Your task to perform on an android device: Open Youtube and go to the subscriptions tab Image 0: 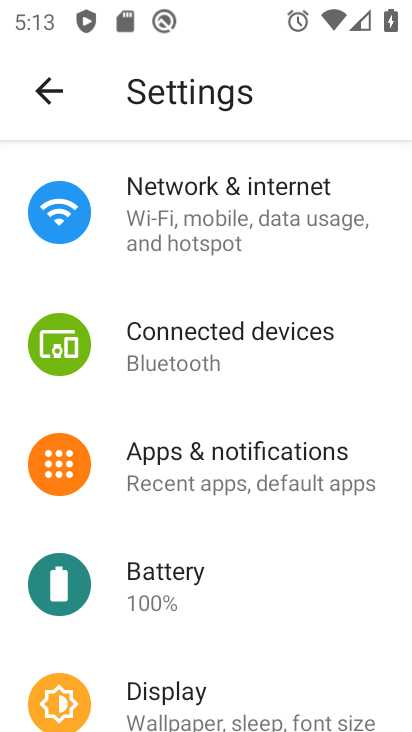
Step 0: press home button
Your task to perform on an android device: Open Youtube and go to the subscriptions tab Image 1: 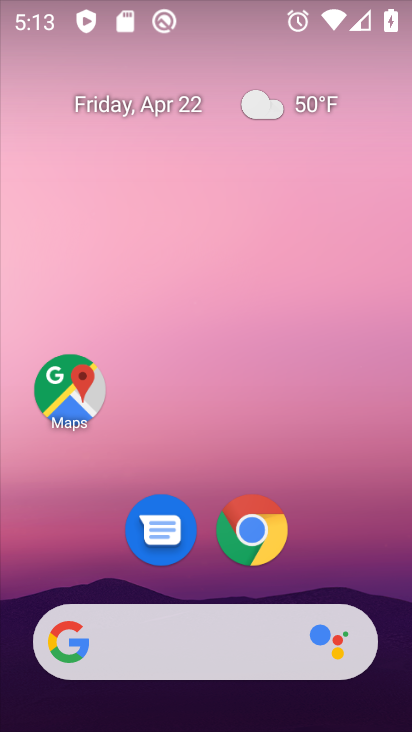
Step 1: drag from (341, 580) to (347, 95)
Your task to perform on an android device: Open Youtube and go to the subscriptions tab Image 2: 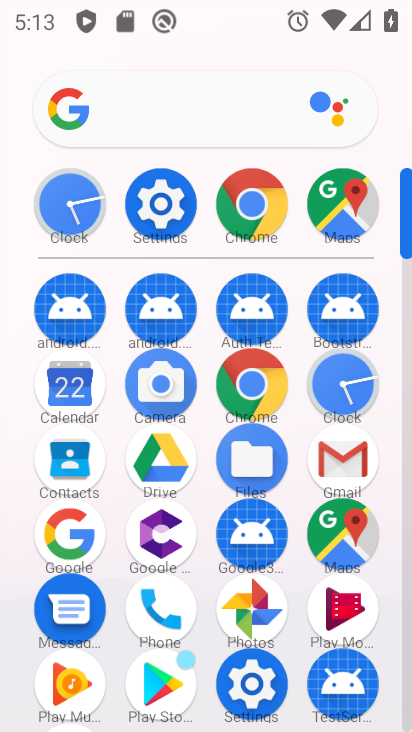
Step 2: drag from (306, 229) to (314, 42)
Your task to perform on an android device: Open Youtube and go to the subscriptions tab Image 3: 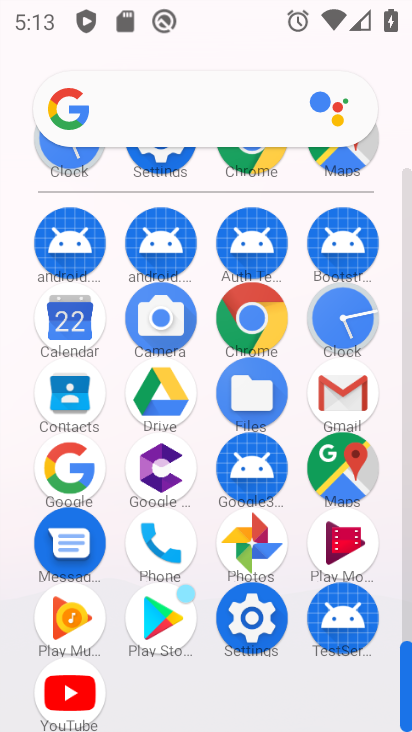
Step 3: click (69, 695)
Your task to perform on an android device: Open Youtube and go to the subscriptions tab Image 4: 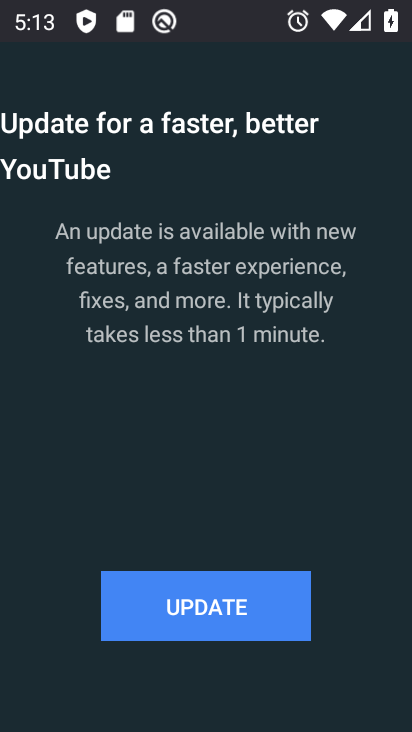
Step 4: click (252, 615)
Your task to perform on an android device: Open Youtube and go to the subscriptions tab Image 5: 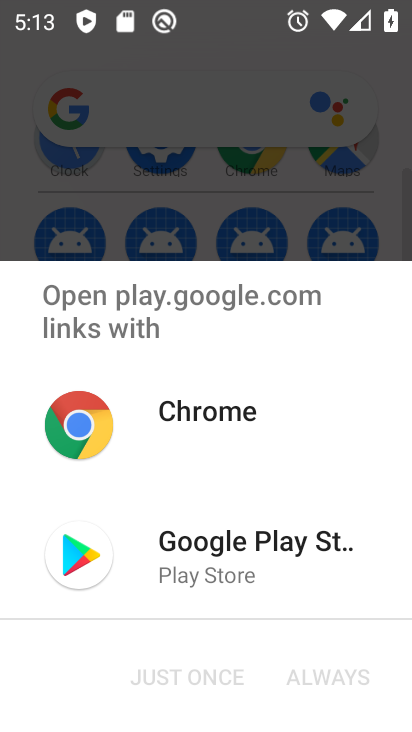
Step 5: click (190, 553)
Your task to perform on an android device: Open Youtube and go to the subscriptions tab Image 6: 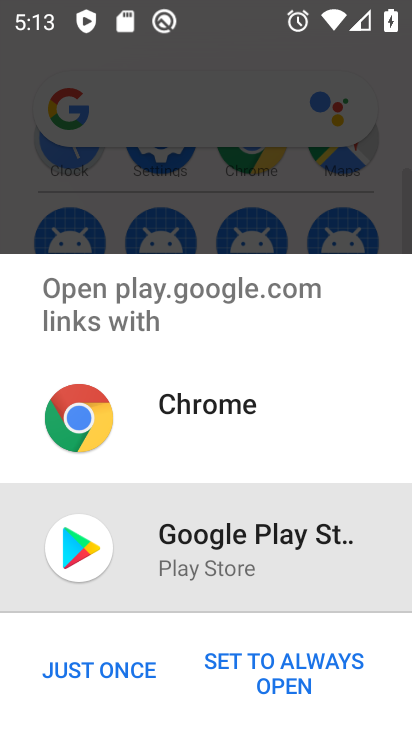
Step 6: click (182, 407)
Your task to perform on an android device: Open Youtube and go to the subscriptions tab Image 7: 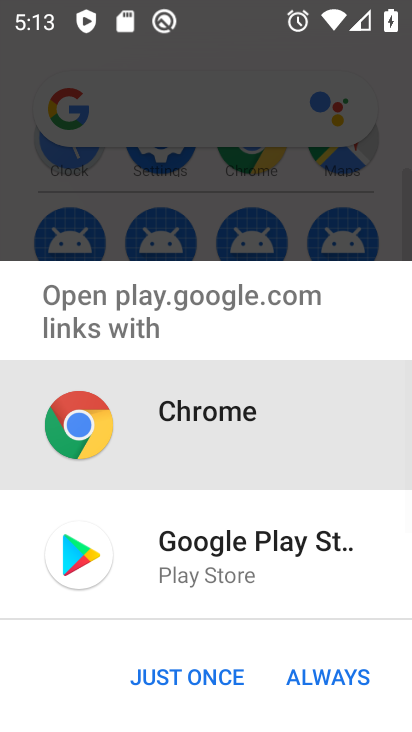
Step 7: click (172, 673)
Your task to perform on an android device: Open Youtube and go to the subscriptions tab Image 8: 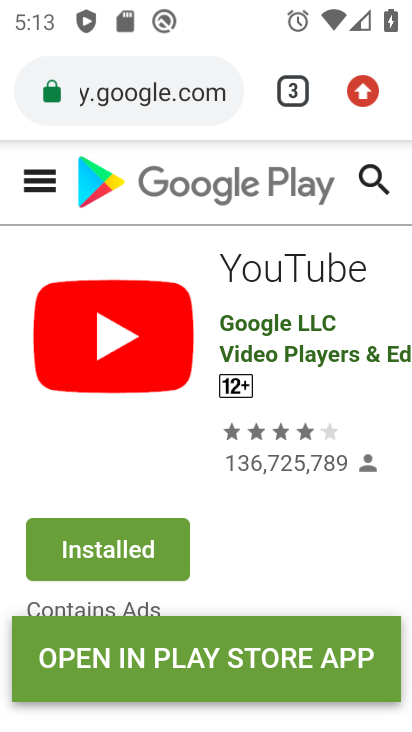
Step 8: press back button
Your task to perform on an android device: Open Youtube and go to the subscriptions tab Image 9: 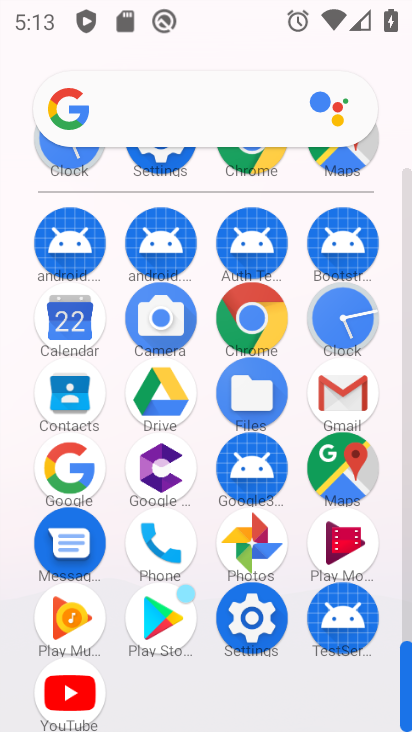
Step 9: click (63, 689)
Your task to perform on an android device: Open Youtube and go to the subscriptions tab Image 10: 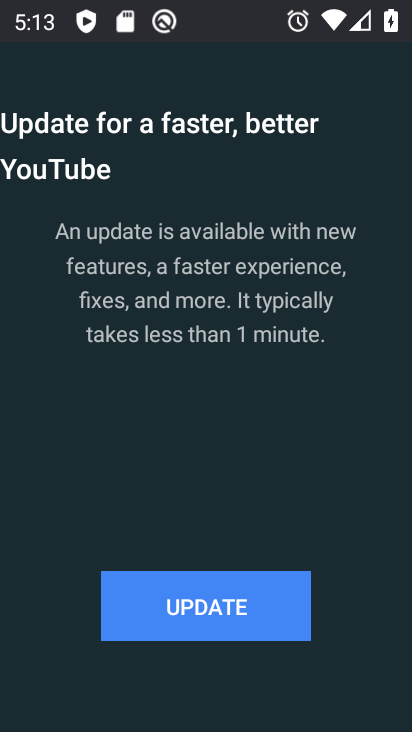
Step 10: click (232, 604)
Your task to perform on an android device: Open Youtube and go to the subscriptions tab Image 11: 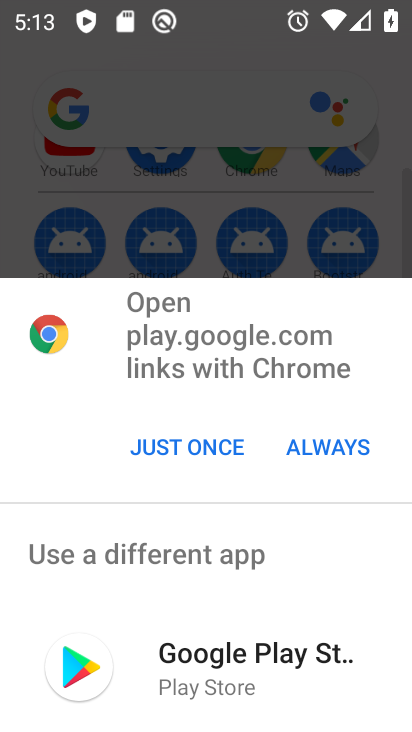
Step 11: click (244, 662)
Your task to perform on an android device: Open Youtube and go to the subscriptions tab Image 12: 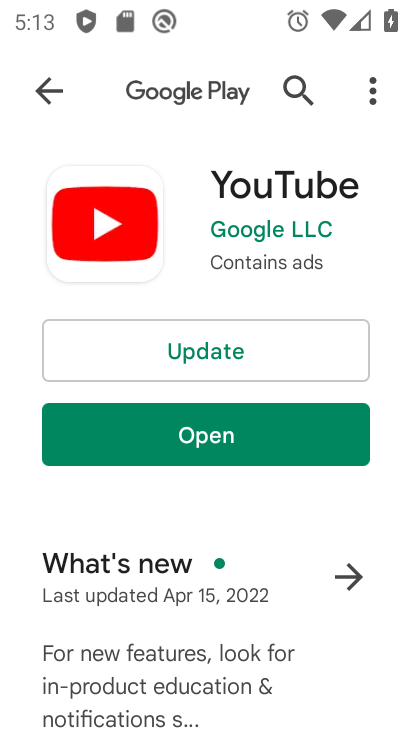
Step 12: click (246, 661)
Your task to perform on an android device: Open Youtube and go to the subscriptions tab Image 13: 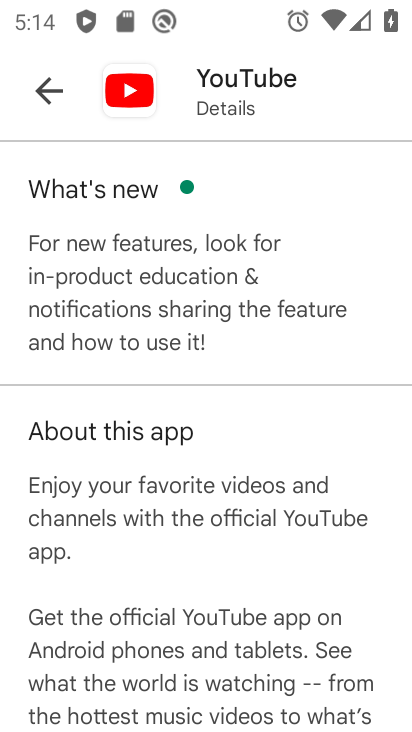
Step 13: click (255, 343)
Your task to perform on an android device: Open Youtube and go to the subscriptions tab Image 14: 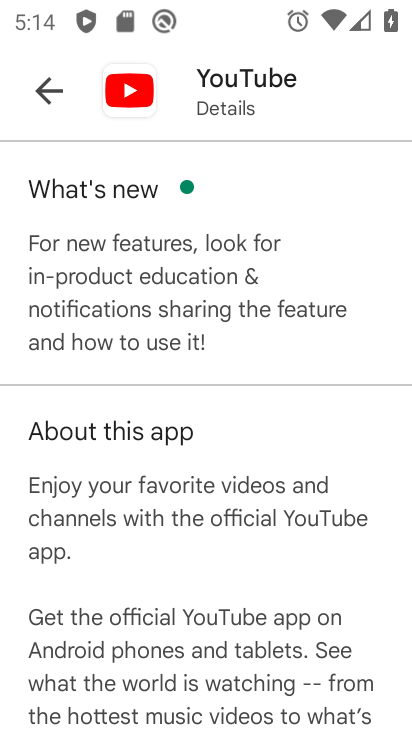
Step 14: drag from (215, 336) to (238, 728)
Your task to perform on an android device: Open Youtube and go to the subscriptions tab Image 15: 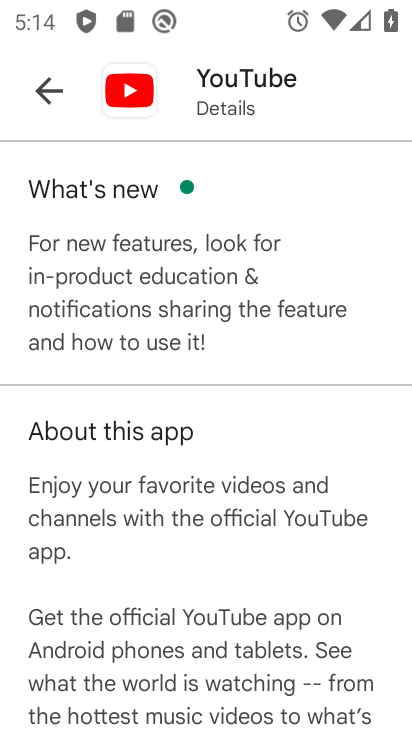
Step 15: drag from (247, 515) to (278, 320)
Your task to perform on an android device: Open Youtube and go to the subscriptions tab Image 16: 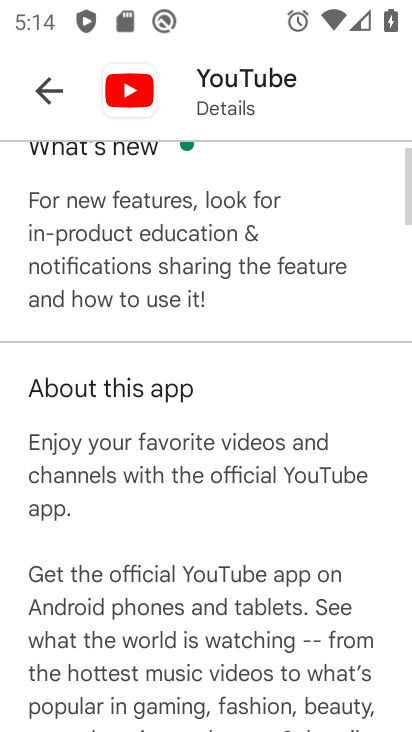
Step 16: click (288, 218)
Your task to perform on an android device: Open Youtube and go to the subscriptions tab Image 17: 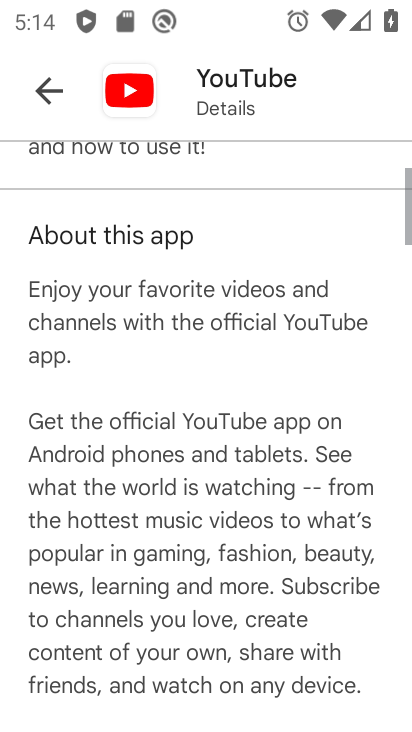
Step 17: drag from (218, 241) to (230, 171)
Your task to perform on an android device: Open Youtube and go to the subscriptions tab Image 18: 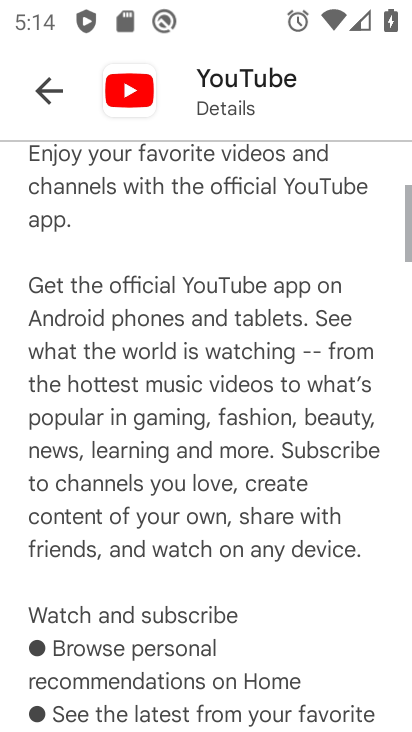
Step 18: click (44, 81)
Your task to perform on an android device: Open Youtube and go to the subscriptions tab Image 19: 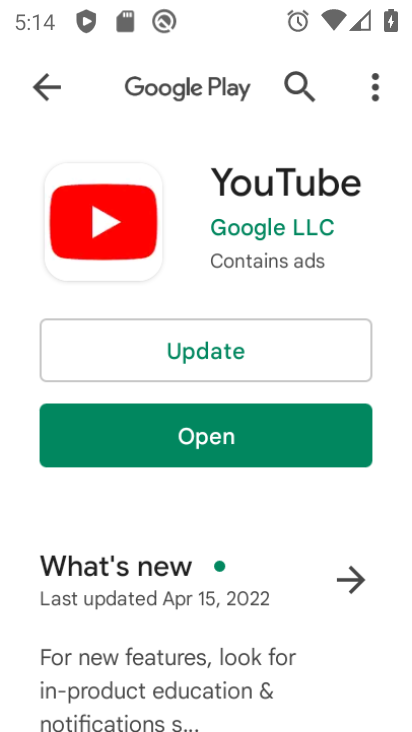
Step 19: click (293, 482)
Your task to perform on an android device: Open Youtube and go to the subscriptions tab Image 20: 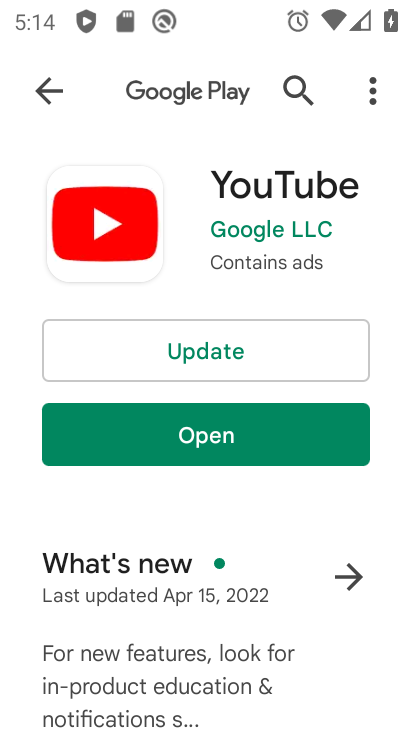
Step 20: click (191, 332)
Your task to perform on an android device: Open Youtube and go to the subscriptions tab Image 21: 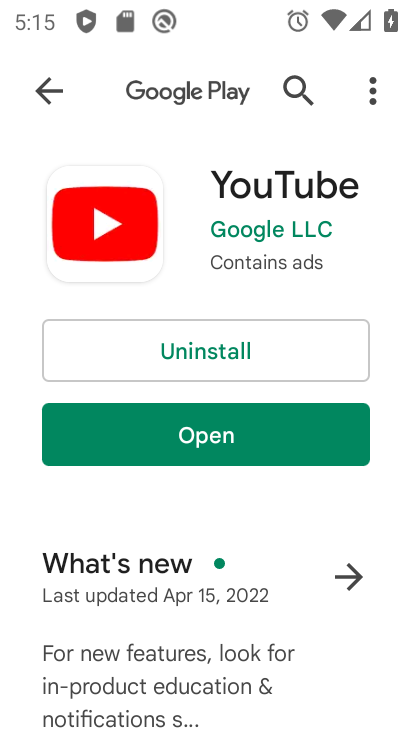
Step 21: click (213, 437)
Your task to perform on an android device: Open Youtube and go to the subscriptions tab Image 22: 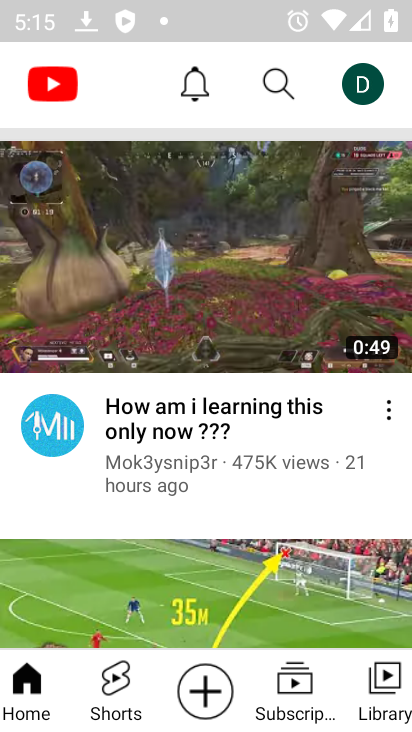
Step 22: click (297, 674)
Your task to perform on an android device: Open Youtube and go to the subscriptions tab Image 23: 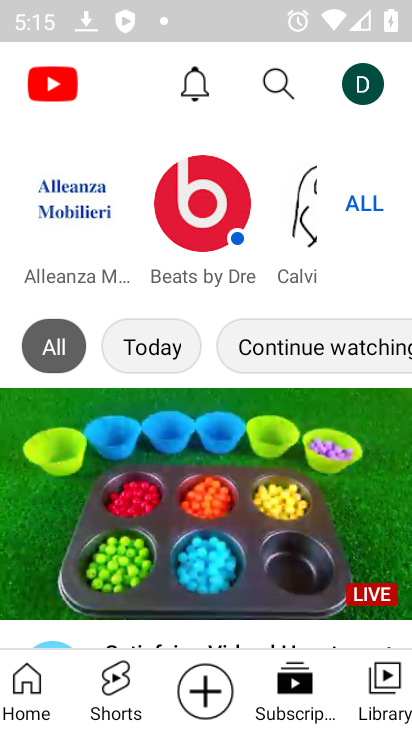
Step 23: task complete